Your task to perform on an android device: Open calendar and show me the fourth week of next month Image 0: 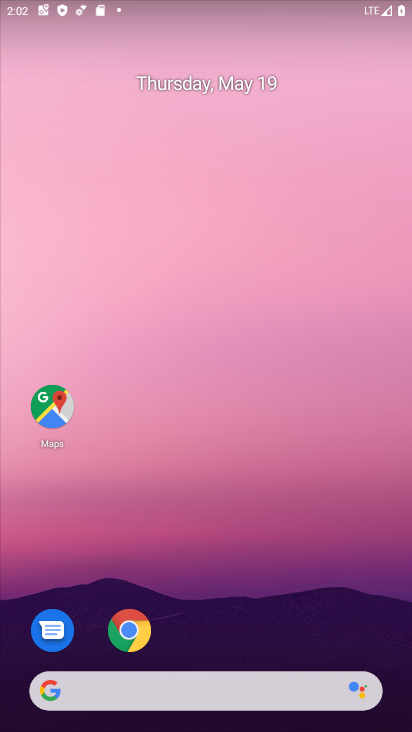
Step 0: drag from (392, 648) to (337, 91)
Your task to perform on an android device: Open calendar and show me the fourth week of next month Image 1: 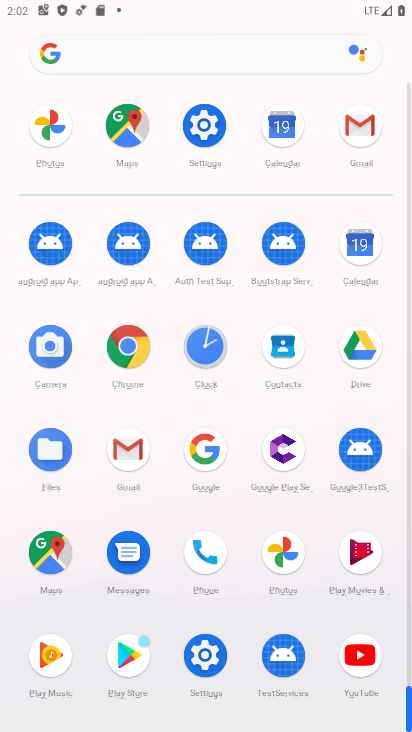
Step 1: click (357, 244)
Your task to perform on an android device: Open calendar and show me the fourth week of next month Image 2: 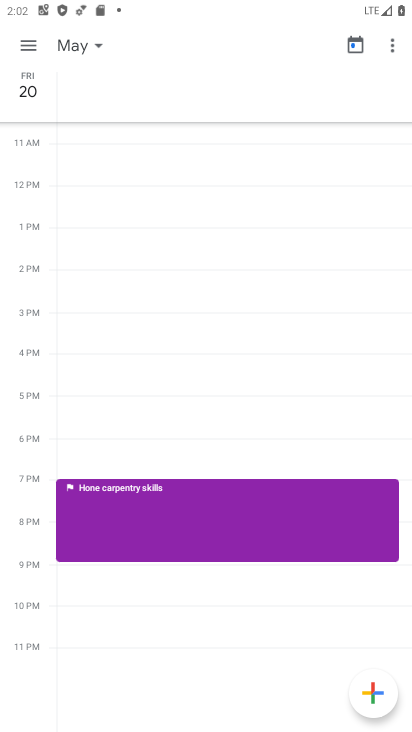
Step 2: click (27, 41)
Your task to perform on an android device: Open calendar and show me the fourth week of next month Image 3: 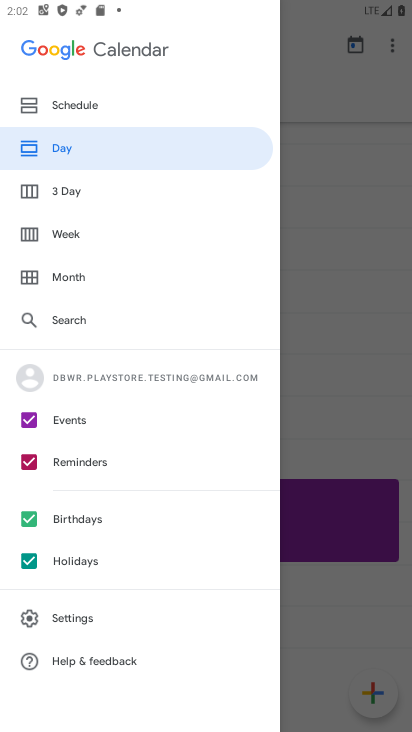
Step 3: click (71, 229)
Your task to perform on an android device: Open calendar and show me the fourth week of next month Image 4: 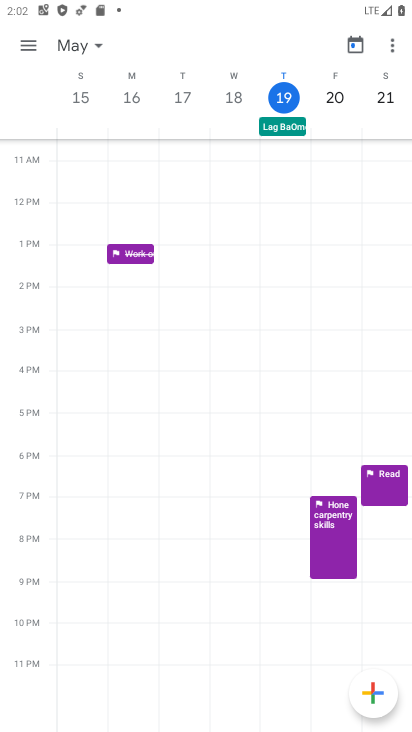
Step 4: click (90, 48)
Your task to perform on an android device: Open calendar and show me the fourth week of next month Image 5: 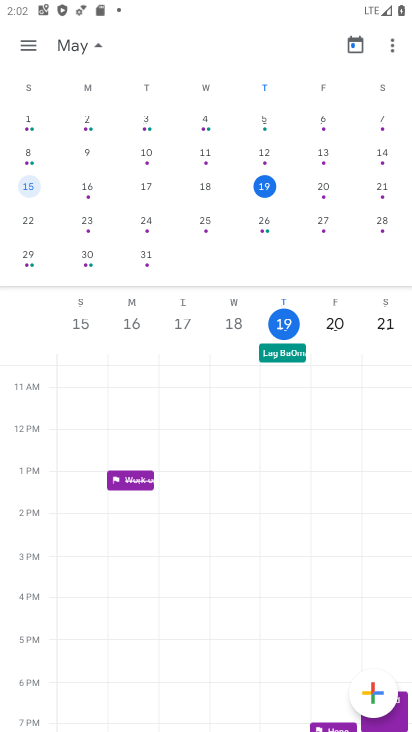
Step 5: drag from (382, 203) to (66, 169)
Your task to perform on an android device: Open calendar and show me the fourth week of next month Image 6: 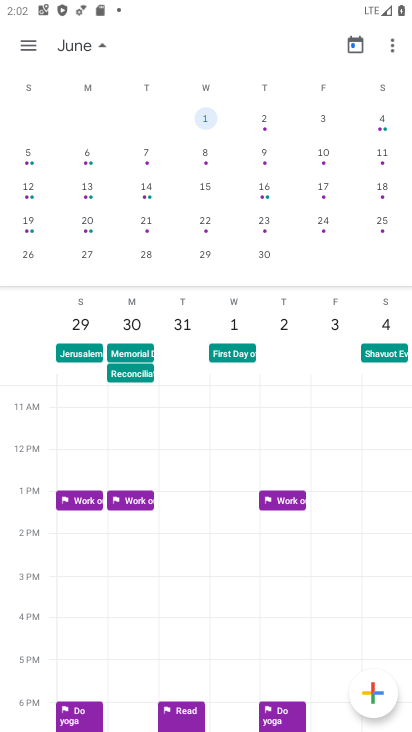
Step 6: click (22, 222)
Your task to perform on an android device: Open calendar and show me the fourth week of next month Image 7: 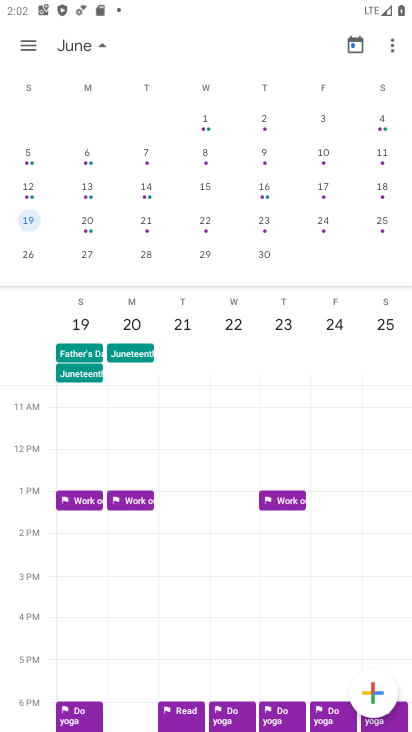
Step 7: task complete